Your task to perform on an android device: turn on translation in the chrome app Image 0: 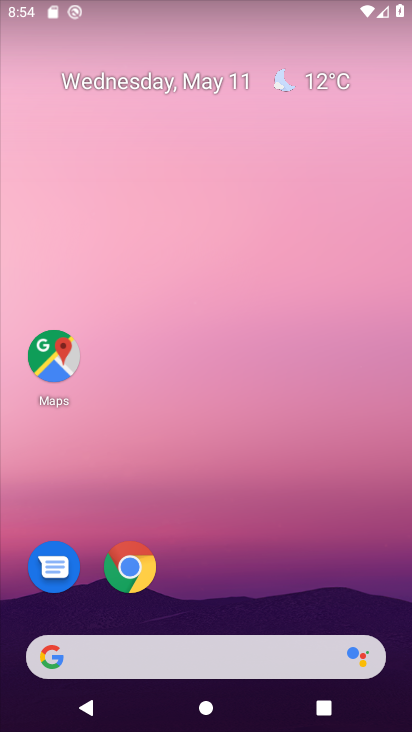
Step 0: click (128, 574)
Your task to perform on an android device: turn on translation in the chrome app Image 1: 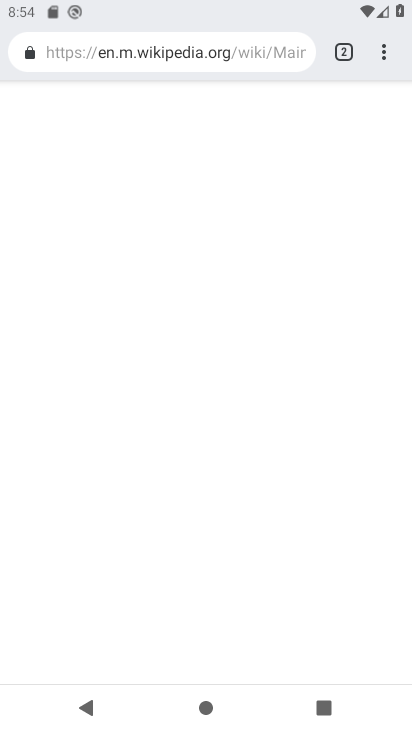
Step 1: click (383, 48)
Your task to perform on an android device: turn on translation in the chrome app Image 2: 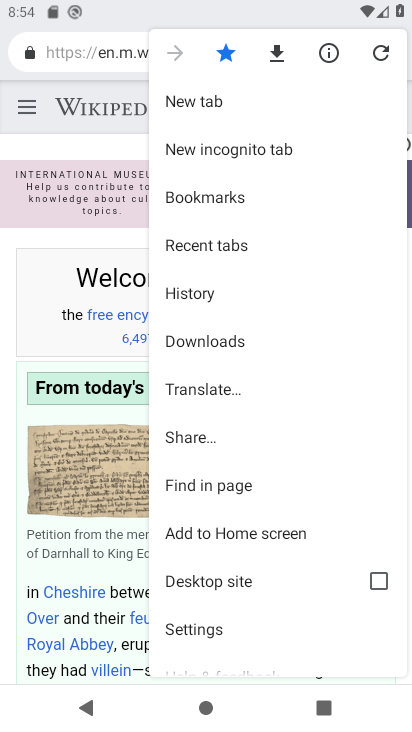
Step 2: click (216, 619)
Your task to perform on an android device: turn on translation in the chrome app Image 3: 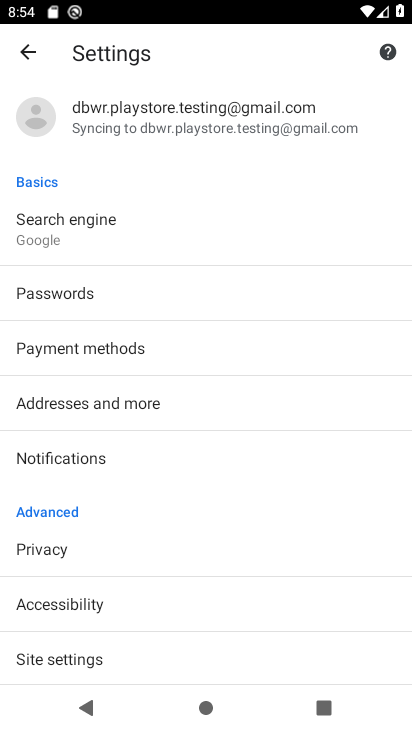
Step 3: drag from (171, 612) to (211, 243)
Your task to perform on an android device: turn on translation in the chrome app Image 4: 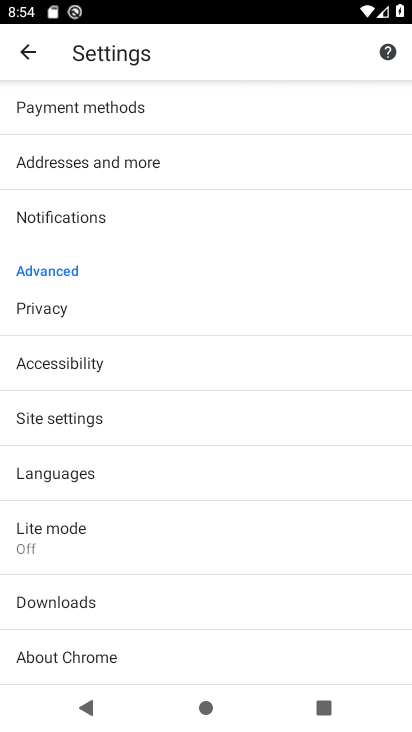
Step 4: click (82, 481)
Your task to perform on an android device: turn on translation in the chrome app Image 5: 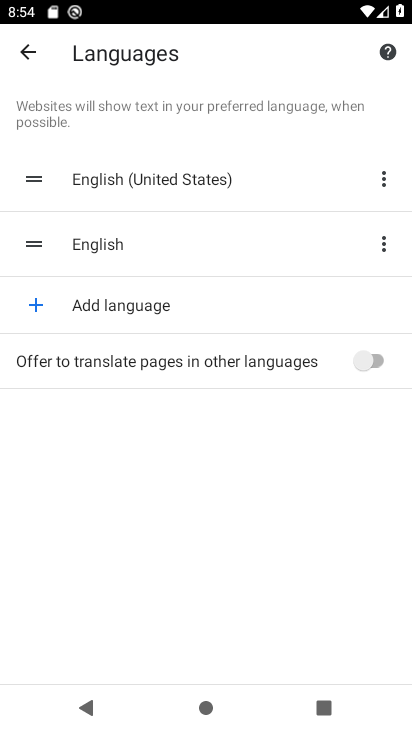
Step 5: click (360, 367)
Your task to perform on an android device: turn on translation in the chrome app Image 6: 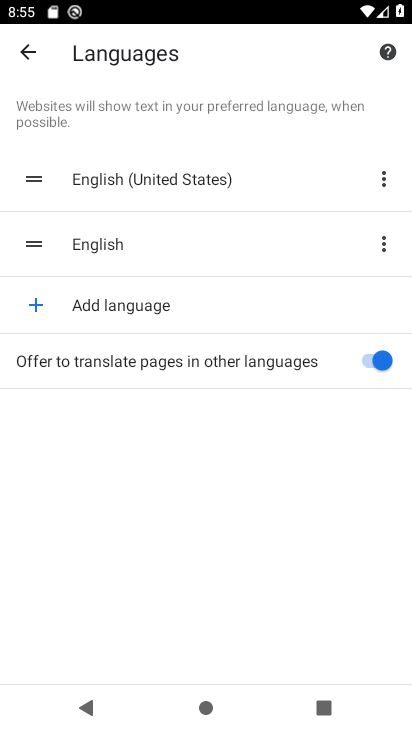
Step 6: task complete